Your task to perform on an android device: turn off javascript in the chrome app Image 0: 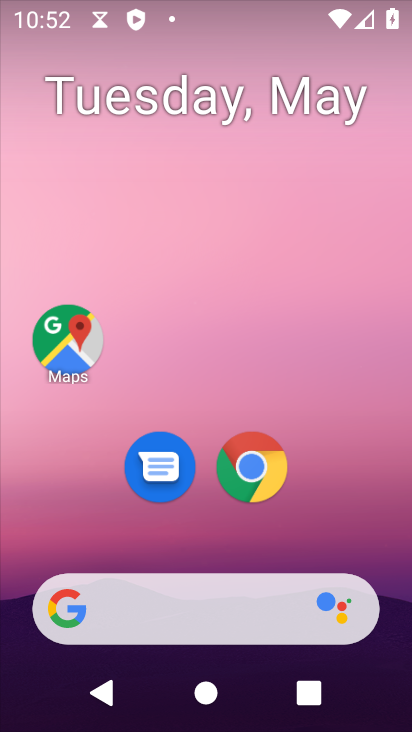
Step 0: click (226, 469)
Your task to perform on an android device: turn off javascript in the chrome app Image 1: 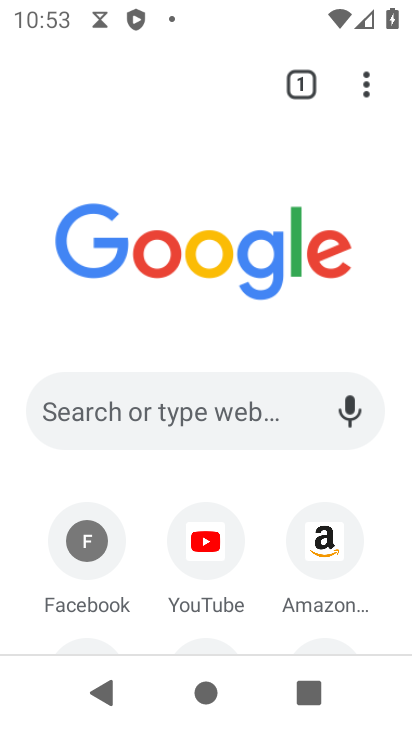
Step 1: click (375, 96)
Your task to perform on an android device: turn off javascript in the chrome app Image 2: 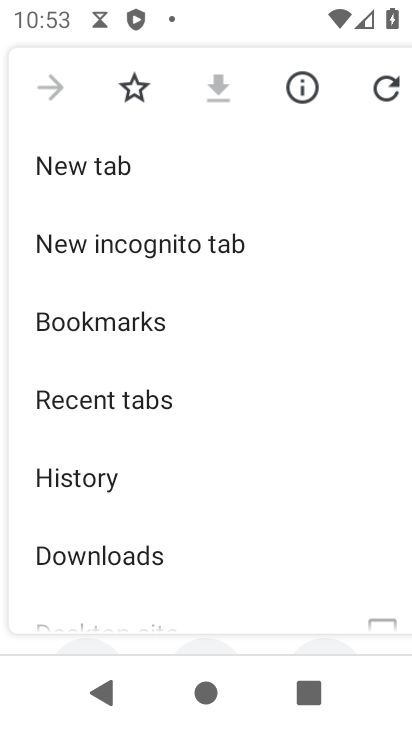
Step 2: drag from (231, 544) to (220, 208)
Your task to perform on an android device: turn off javascript in the chrome app Image 3: 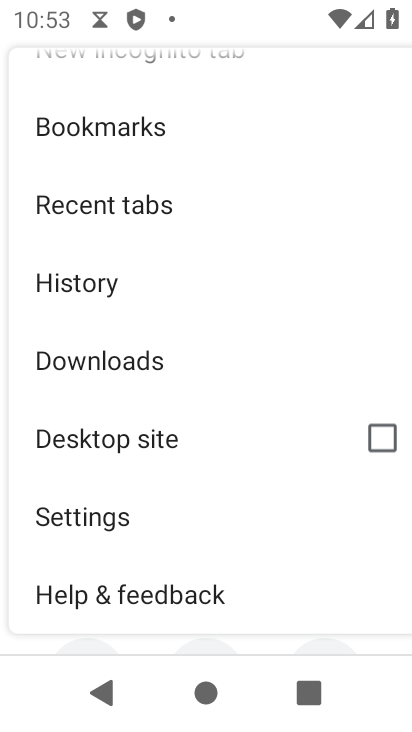
Step 3: click (203, 523)
Your task to perform on an android device: turn off javascript in the chrome app Image 4: 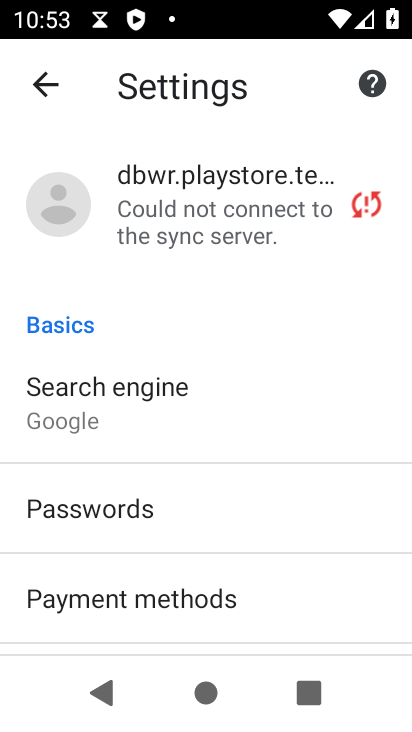
Step 4: drag from (227, 590) to (220, 270)
Your task to perform on an android device: turn off javascript in the chrome app Image 5: 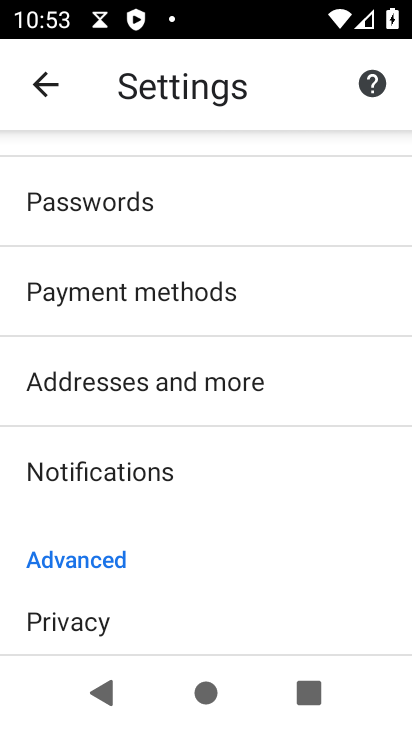
Step 5: drag from (230, 547) to (216, 244)
Your task to perform on an android device: turn off javascript in the chrome app Image 6: 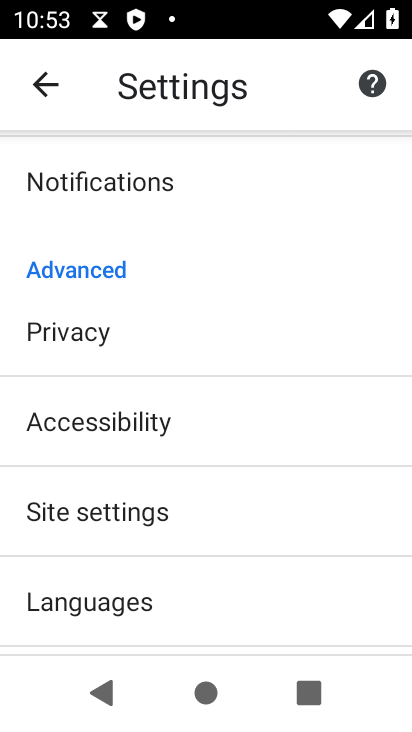
Step 6: click (205, 495)
Your task to perform on an android device: turn off javascript in the chrome app Image 7: 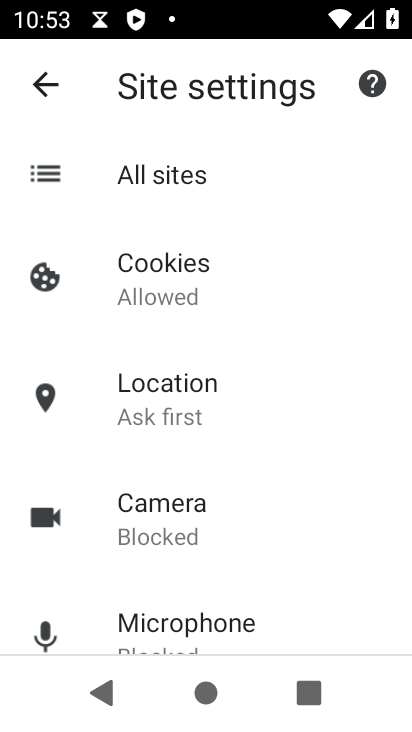
Step 7: drag from (240, 601) to (222, 242)
Your task to perform on an android device: turn off javascript in the chrome app Image 8: 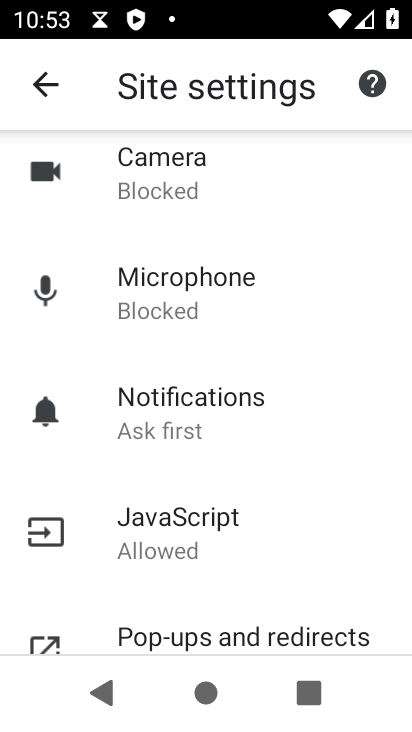
Step 8: click (259, 532)
Your task to perform on an android device: turn off javascript in the chrome app Image 9: 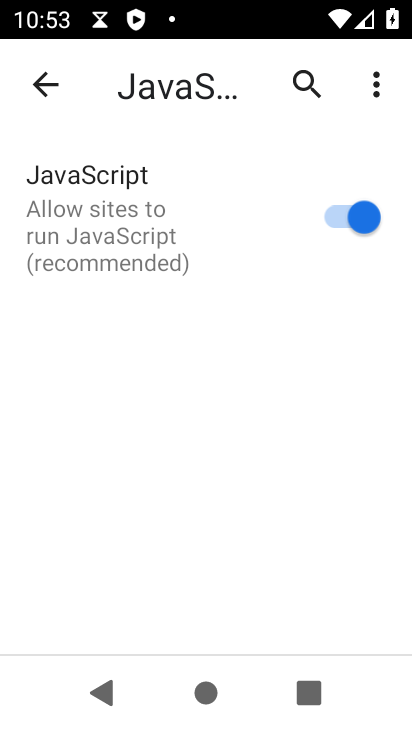
Step 9: click (357, 209)
Your task to perform on an android device: turn off javascript in the chrome app Image 10: 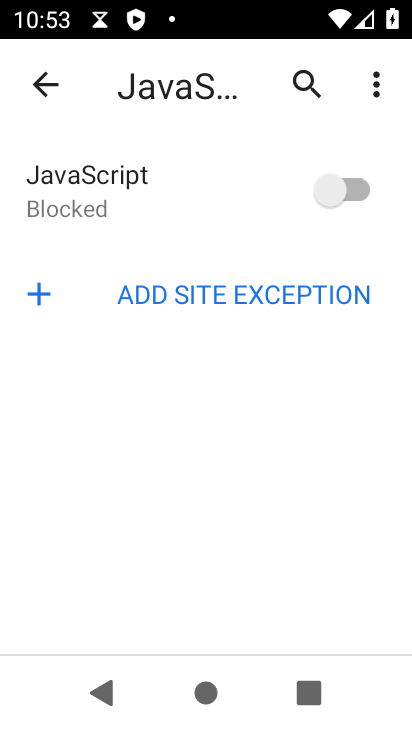
Step 10: task complete